Your task to perform on an android device: turn off location history Image 0: 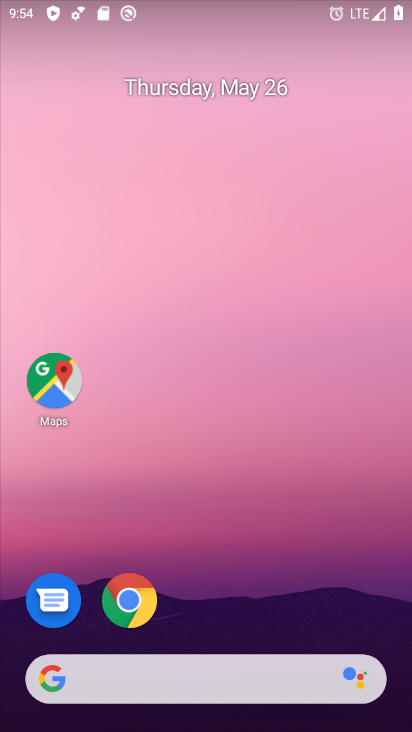
Step 0: drag from (305, 580) to (309, 13)
Your task to perform on an android device: turn off location history Image 1: 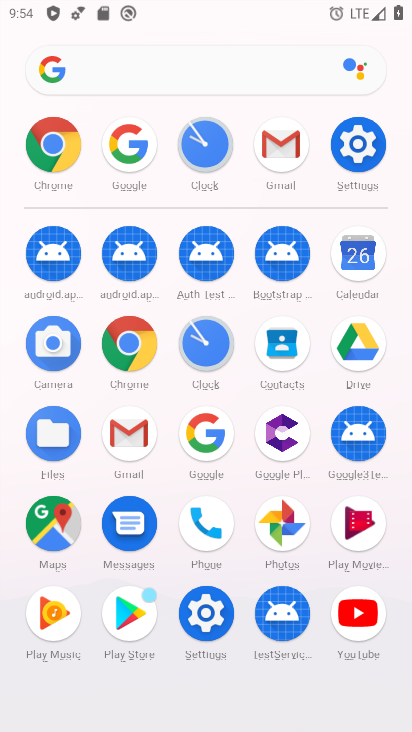
Step 1: click (365, 144)
Your task to perform on an android device: turn off location history Image 2: 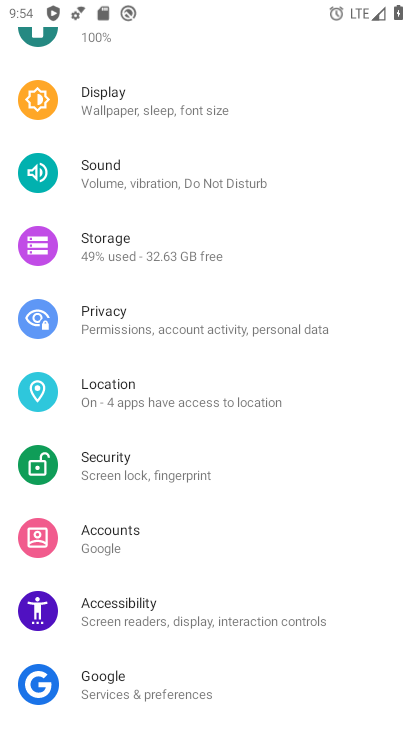
Step 2: click (144, 417)
Your task to perform on an android device: turn off location history Image 3: 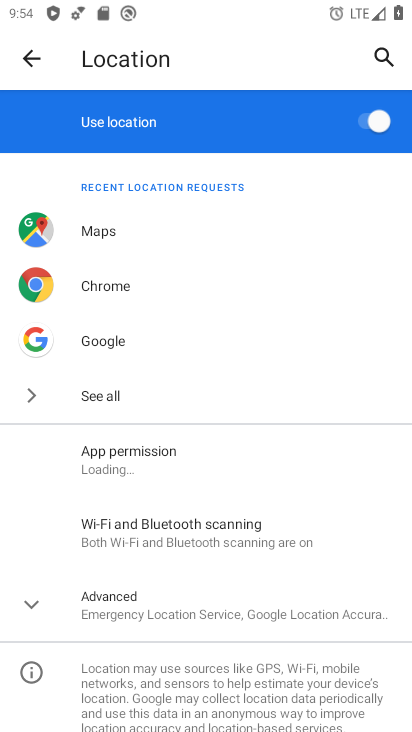
Step 3: click (206, 597)
Your task to perform on an android device: turn off location history Image 4: 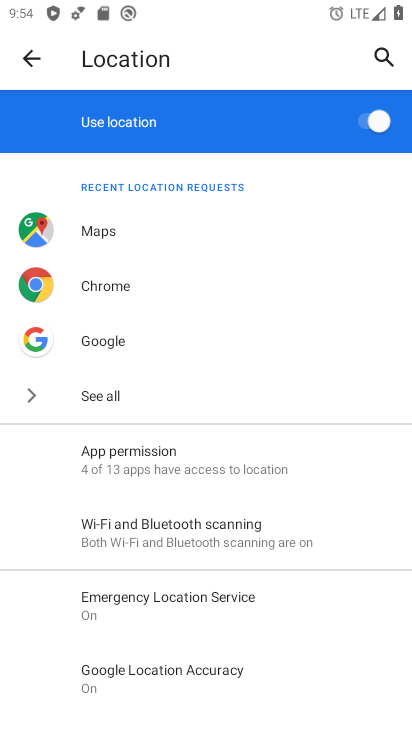
Step 4: drag from (309, 651) to (334, 174)
Your task to perform on an android device: turn off location history Image 5: 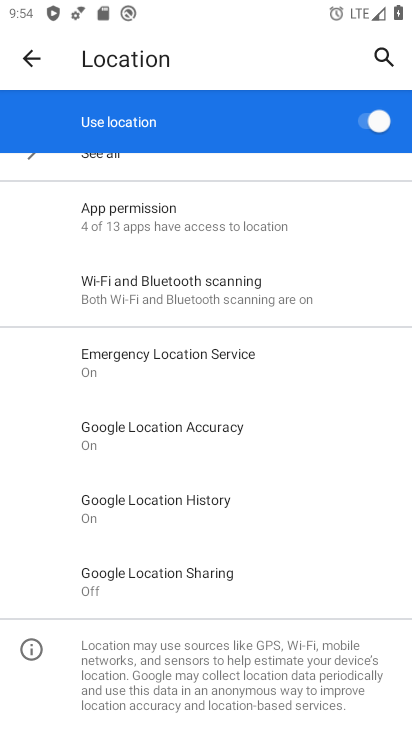
Step 5: click (202, 512)
Your task to perform on an android device: turn off location history Image 6: 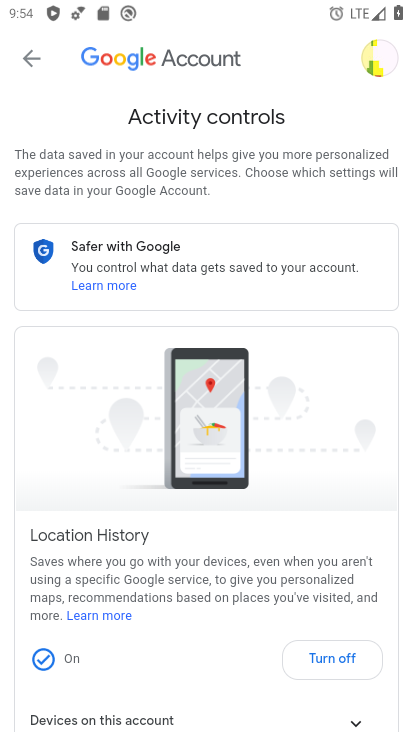
Step 6: click (347, 667)
Your task to perform on an android device: turn off location history Image 7: 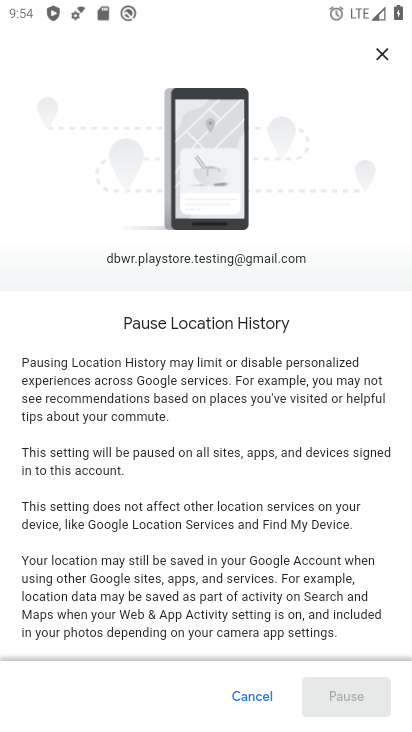
Step 7: drag from (336, 620) to (304, 220)
Your task to perform on an android device: turn off location history Image 8: 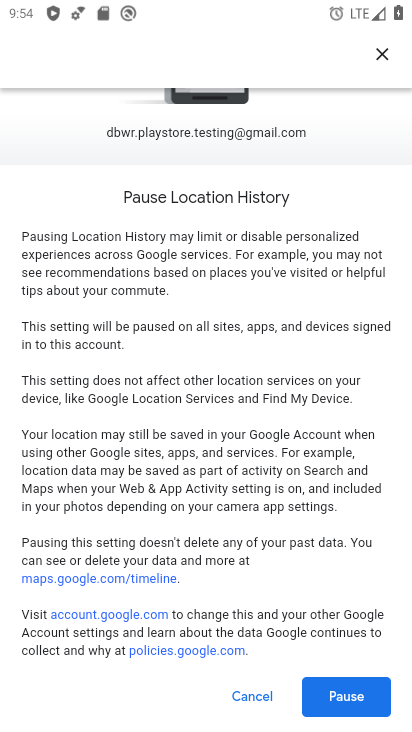
Step 8: click (342, 701)
Your task to perform on an android device: turn off location history Image 9: 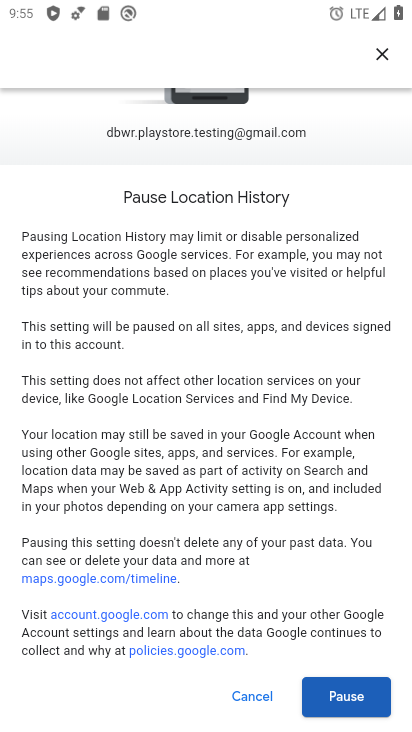
Step 9: click (342, 696)
Your task to perform on an android device: turn off location history Image 10: 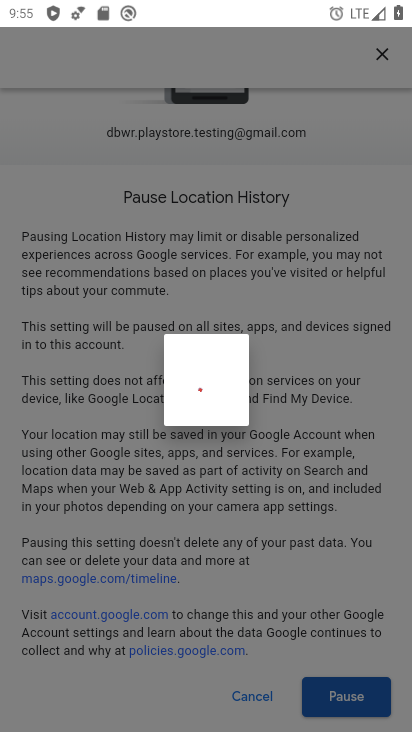
Step 10: click (342, 689)
Your task to perform on an android device: turn off location history Image 11: 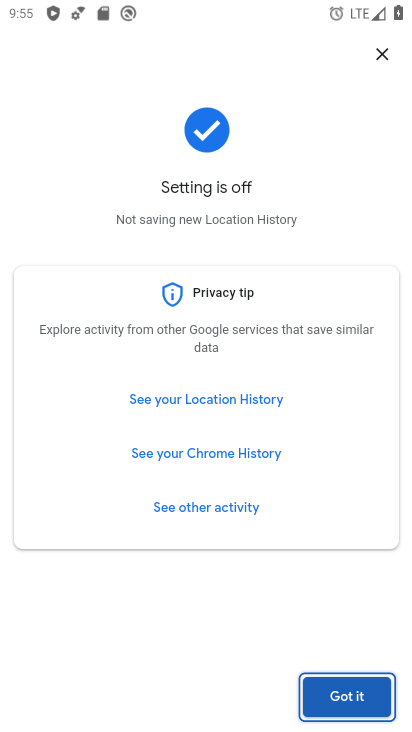
Step 11: task complete